Your task to perform on an android device: Do I have any events this weekend? Image 0: 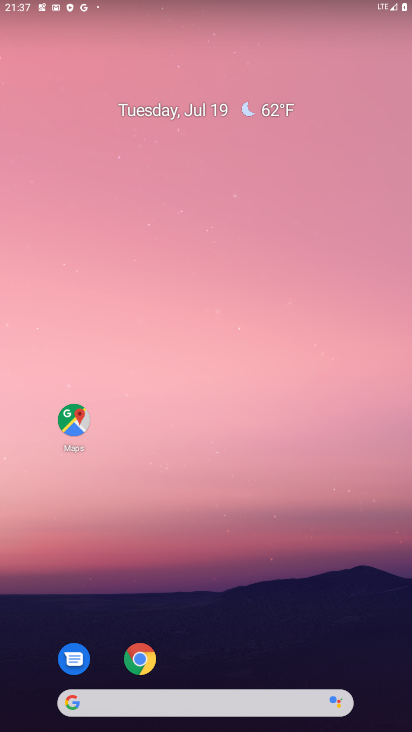
Step 0: press home button
Your task to perform on an android device: Do I have any events this weekend? Image 1: 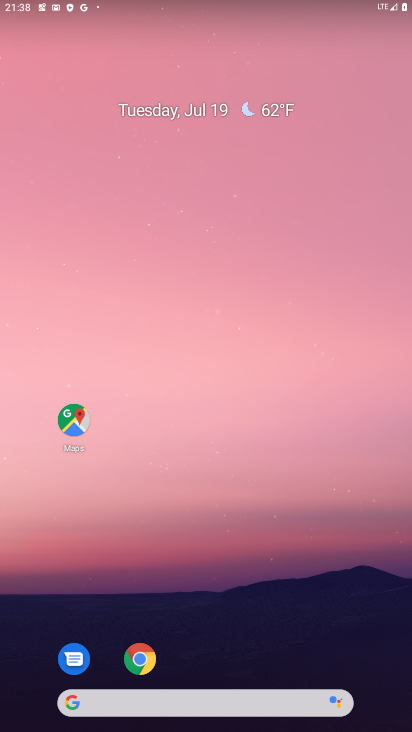
Step 1: drag from (303, 669) to (281, 140)
Your task to perform on an android device: Do I have any events this weekend? Image 2: 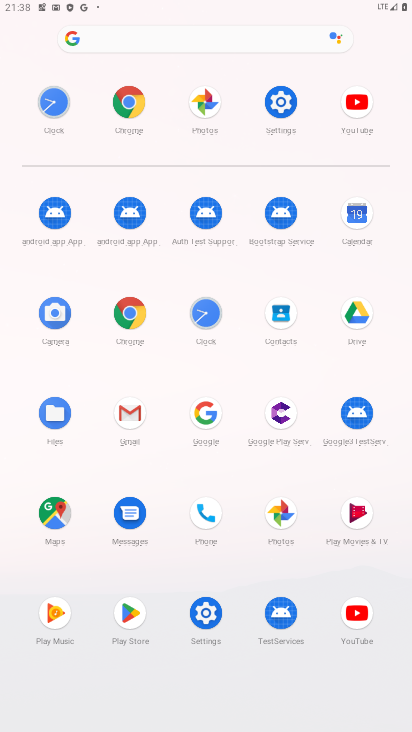
Step 2: click (365, 208)
Your task to perform on an android device: Do I have any events this weekend? Image 3: 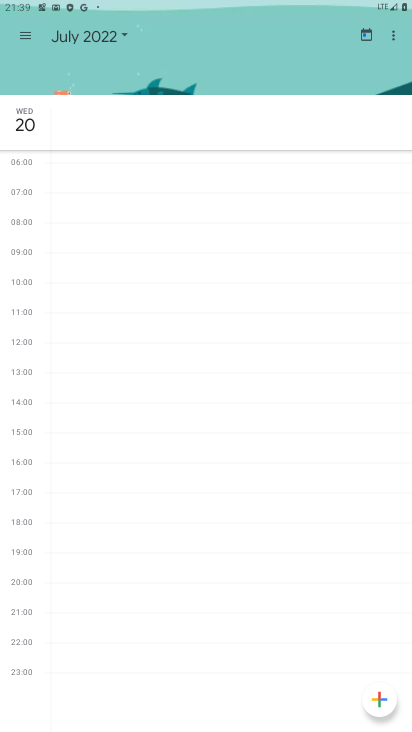
Step 3: click (125, 34)
Your task to perform on an android device: Do I have any events this weekend? Image 4: 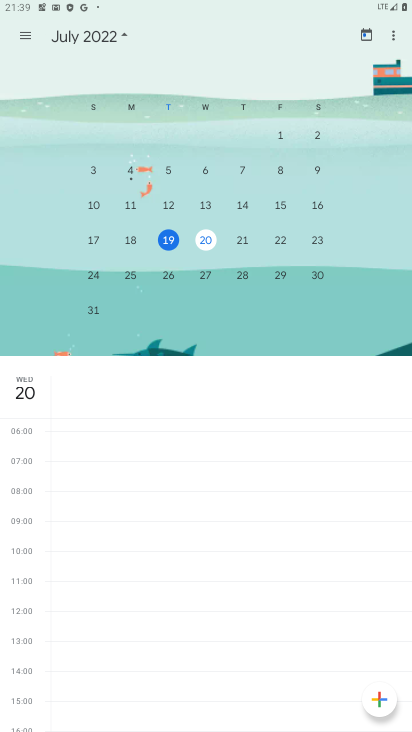
Step 4: click (206, 263)
Your task to perform on an android device: Do I have any events this weekend? Image 5: 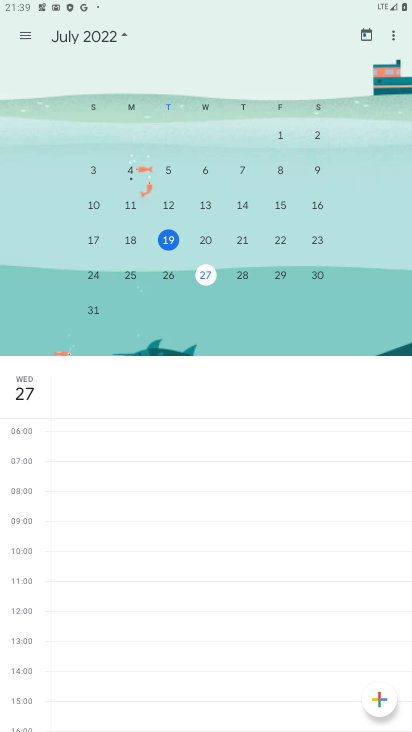
Step 5: task complete